Your task to perform on an android device: visit the assistant section in the google photos Image 0: 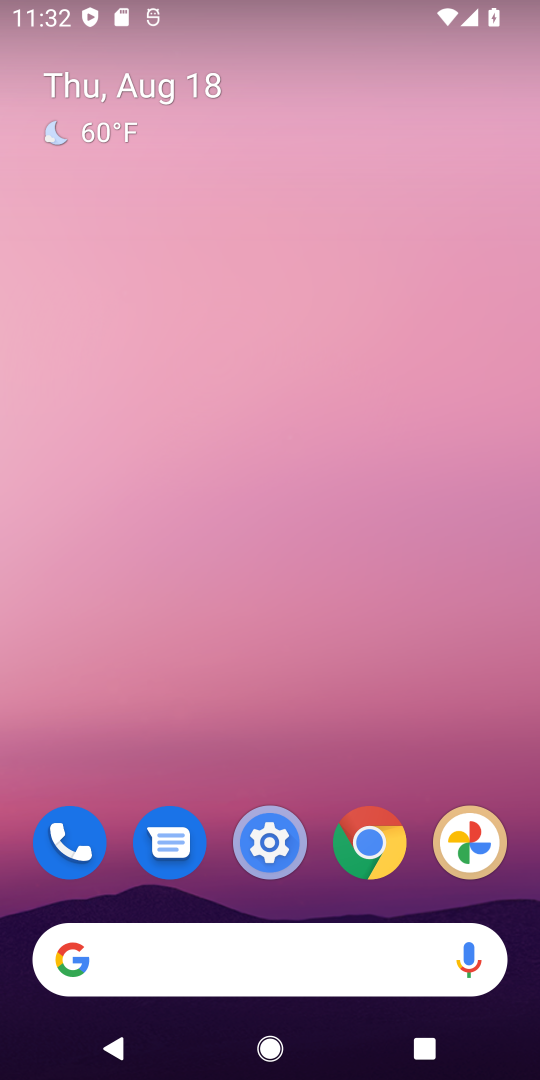
Step 0: click (485, 854)
Your task to perform on an android device: visit the assistant section in the google photos Image 1: 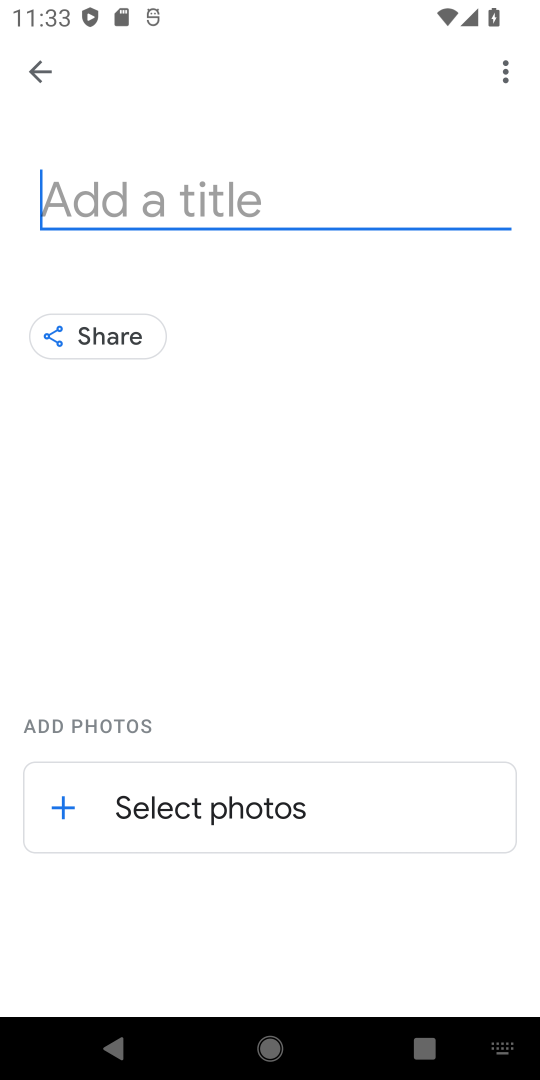
Step 1: click (62, 83)
Your task to perform on an android device: visit the assistant section in the google photos Image 2: 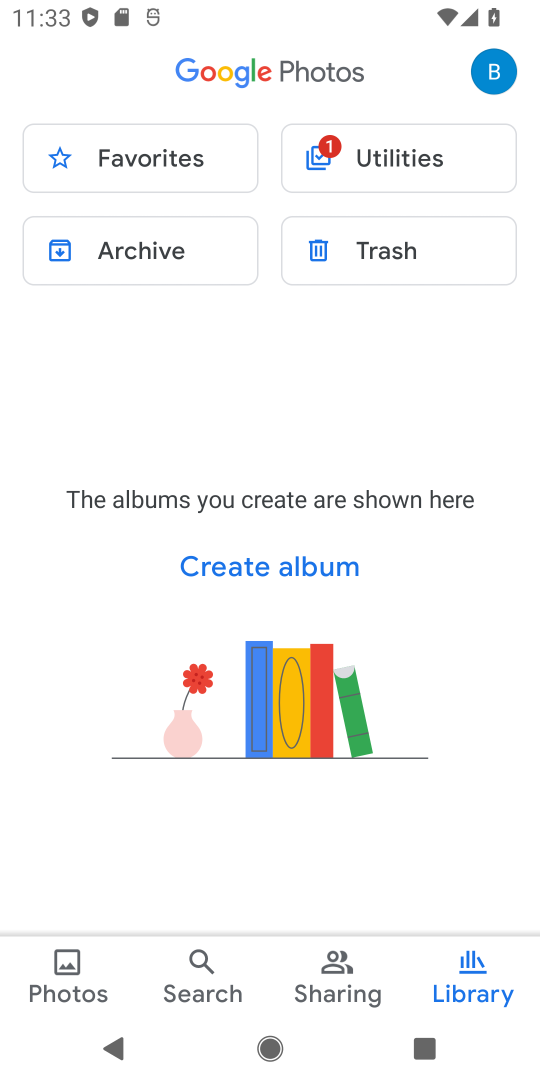
Step 2: click (473, 77)
Your task to perform on an android device: visit the assistant section in the google photos Image 3: 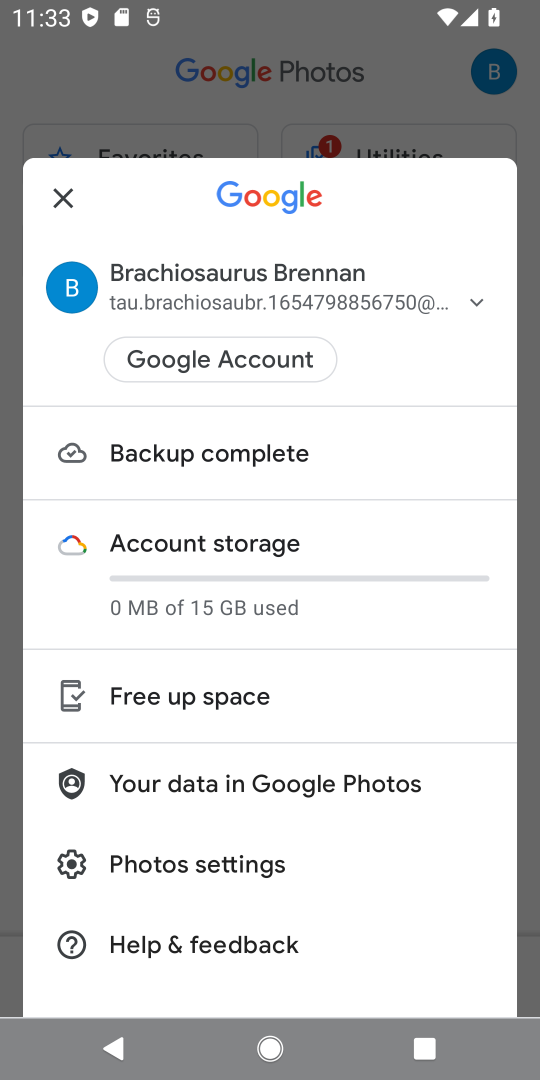
Step 3: click (210, 130)
Your task to perform on an android device: visit the assistant section in the google photos Image 4: 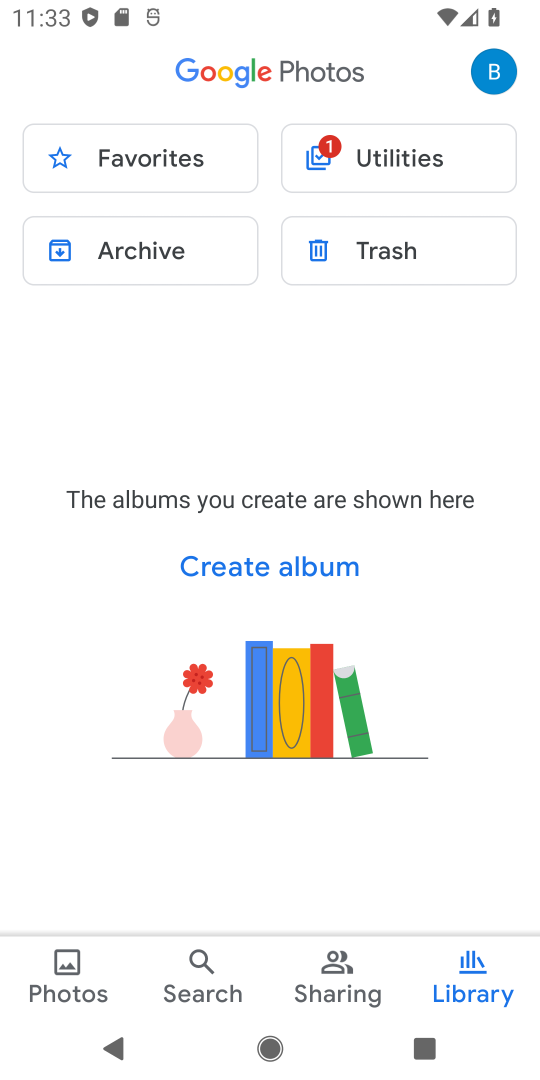
Step 4: task complete